Your task to perform on an android device: Search for seafood restaurants on Google Maps Image 0: 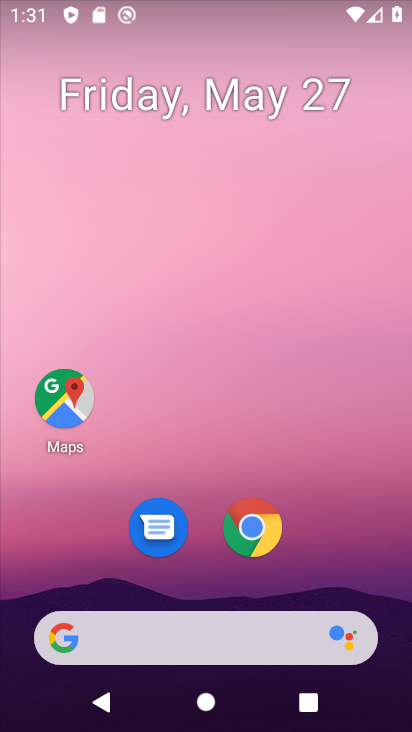
Step 0: click (64, 394)
Your task to perform on an android device: Search for seafood restaurants on Google Maps Image 1: 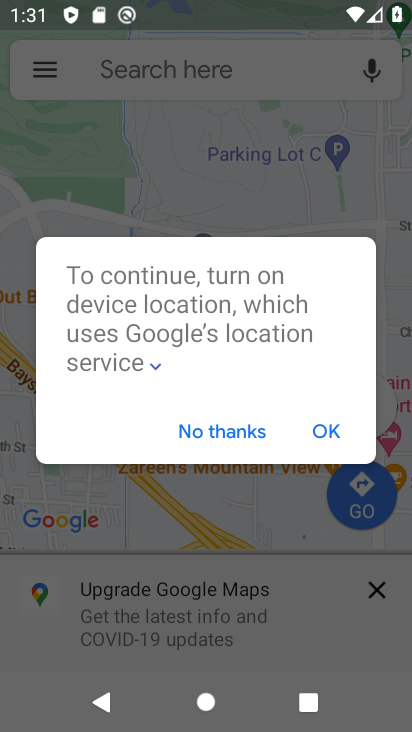
Step 1: type "seafood restaurants"
Your task to perform on an android device: Search for seafood restaurants on Google Maps Image 2: 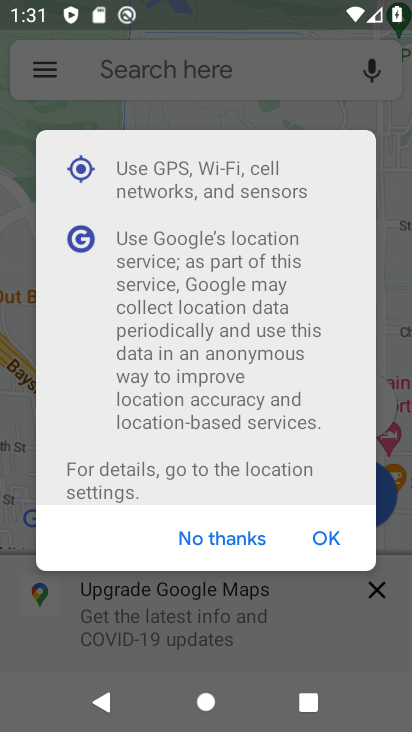
Step 2: click (325, 528)
Your task to perform on an android device: Search for seafood restaurants on Google Maps Image 3: 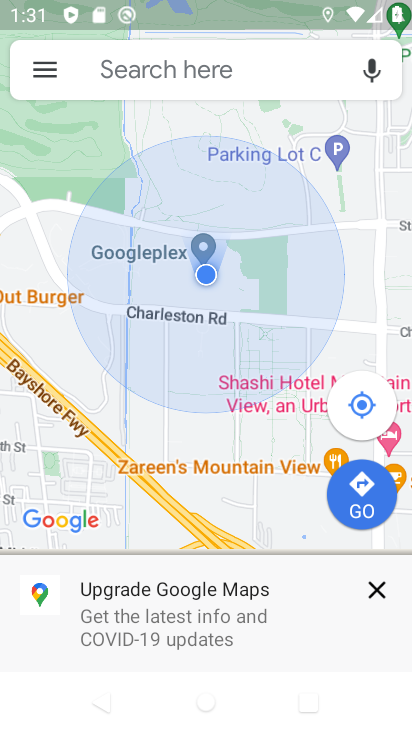
Step 3: click (138, 74)
Your task to perform on an android device: Search for seafood restaurants on Google Maps Image 4: 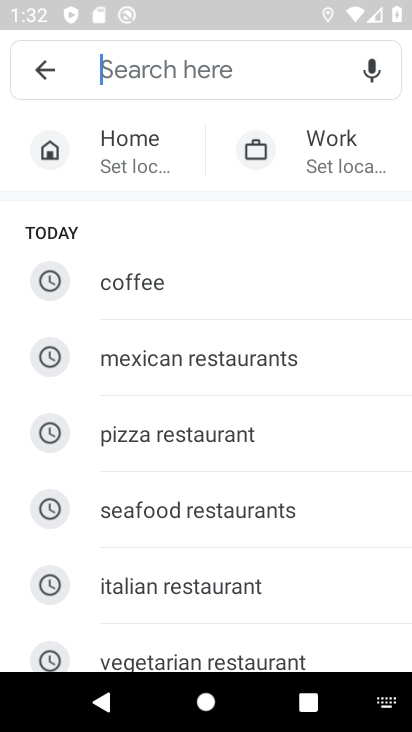
Step 4: type "seafood restaurants"
Your task to perform on an android device: Search for seafood restaurants on Google Maps Image 5: 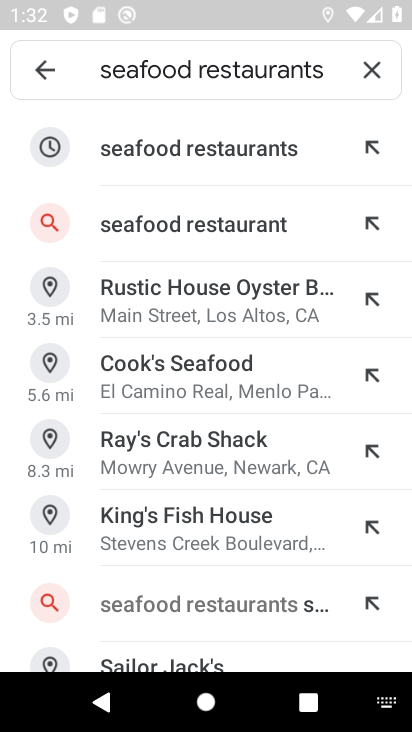
Step 5: click (128, 148)
Your task to perform on an android device: Search for seafood restaurants on Google Maps Image 6: 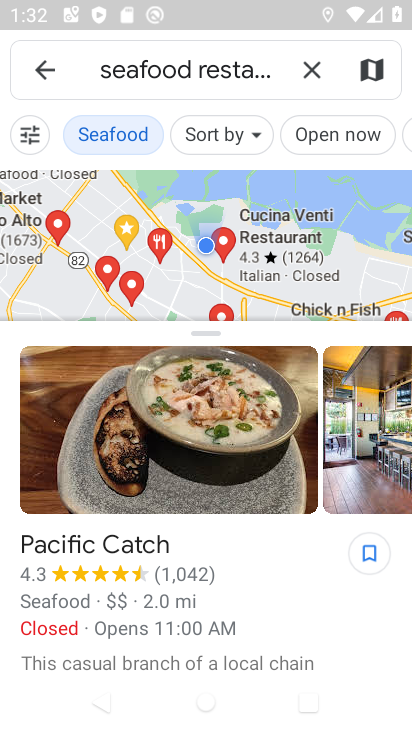
Step 6: task complete